Your task to perform on an android device: Open calendar and show me the fourth week of next month Image 0: 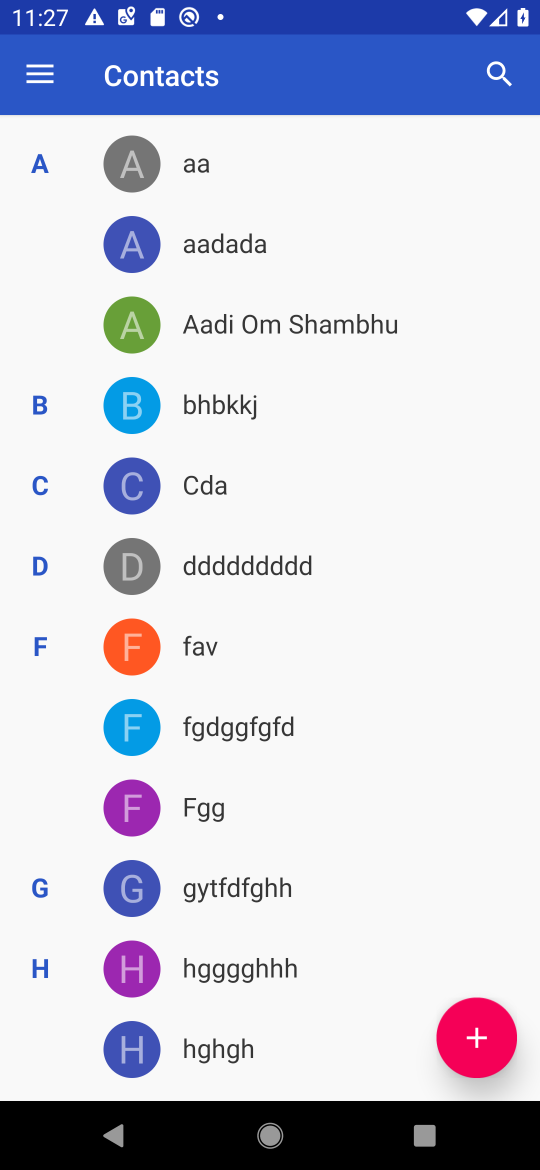
Step 0: press home button
Your task to perform on an android device: Open calendar and show me the fourth week of next month Image 1: 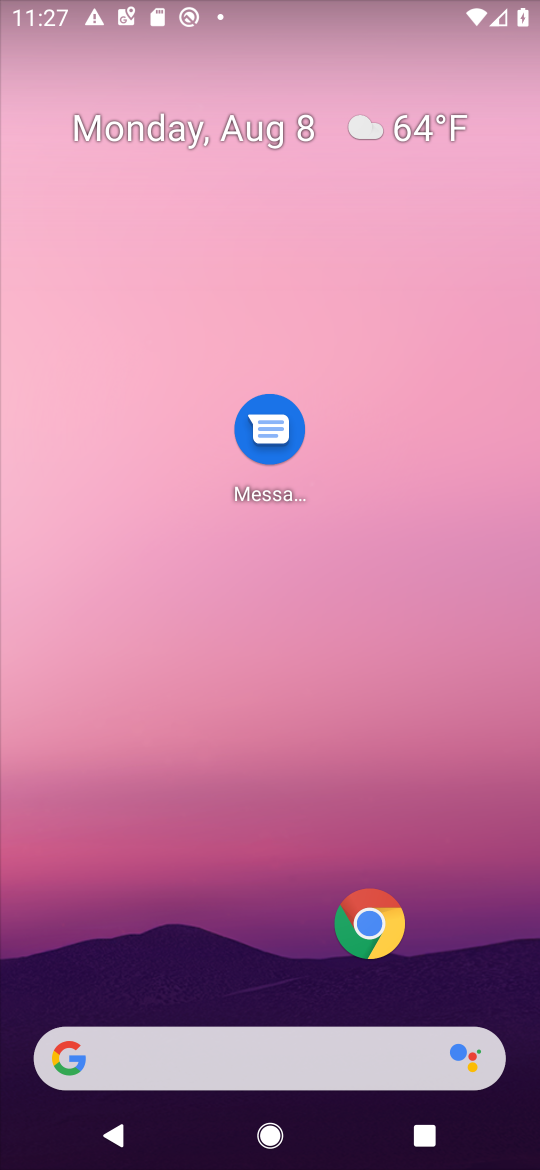
Step 1: drag from (31, 1117) to (312, 342)
Your task to perform on an android device: Open calendar and show me the fourth week of next month Image 2: 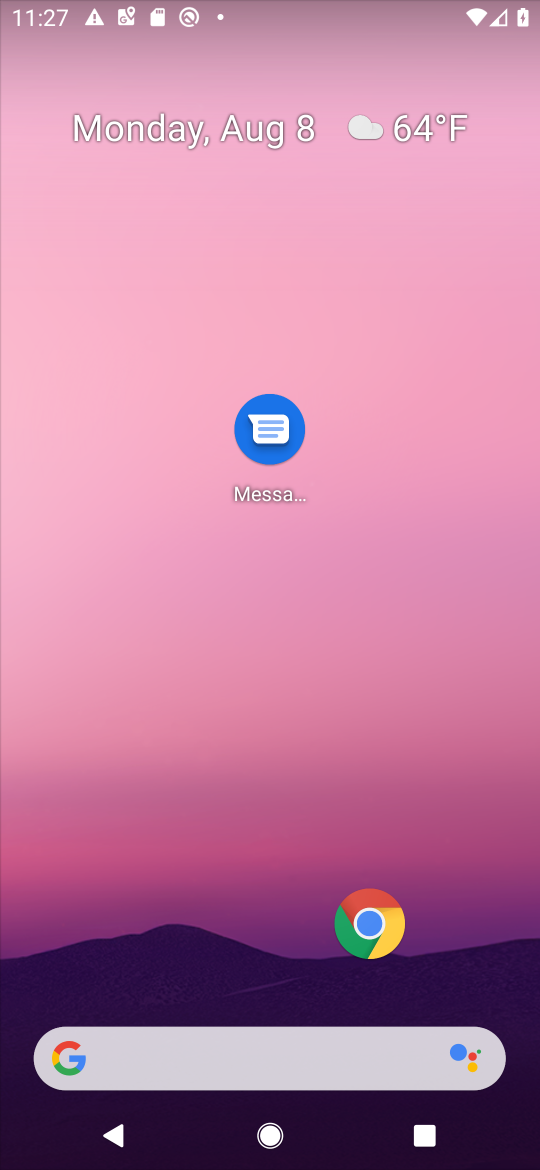
Step 2: drag from (34, 1131) to (352, 441)
Your task to perform on an android device: Open calendar and show me the fourth week of next month Image 3: 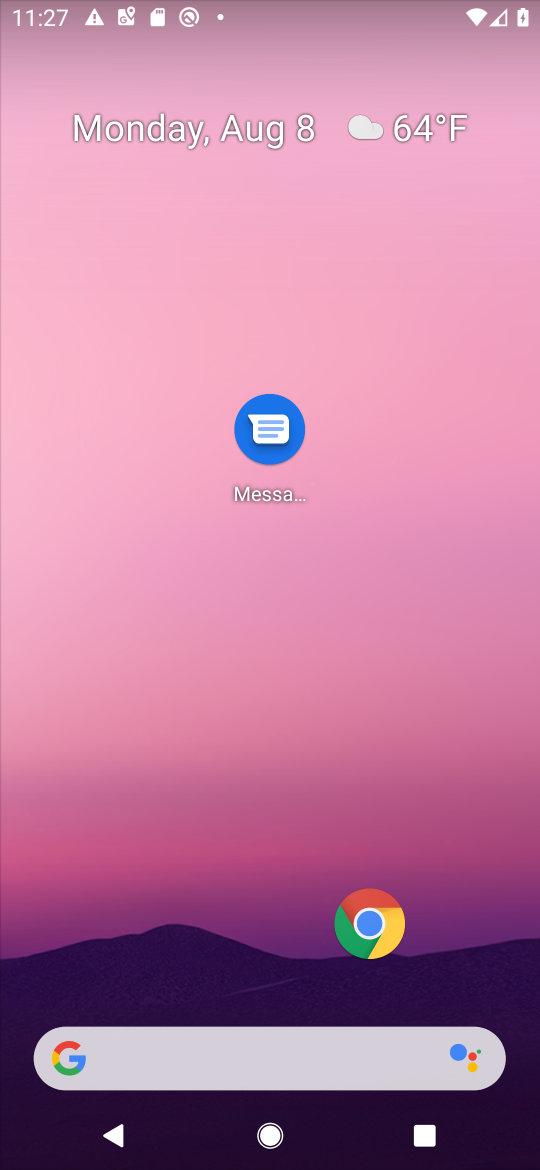
Step 3: drag from (20, 1105) to (305, 147)
Your task to perform on an android device: Open calendar and show me the fourth week of next month Image 4: 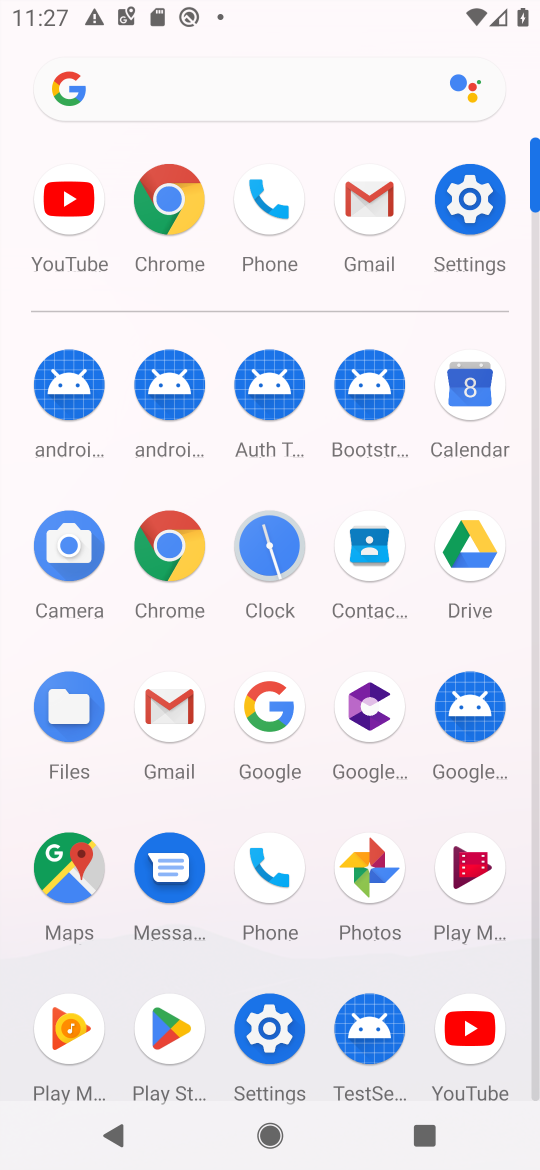
Step 4: click (483, 416)
Your task to perform on an android device: Open calendar and show me the fourth week of next month Image 5: 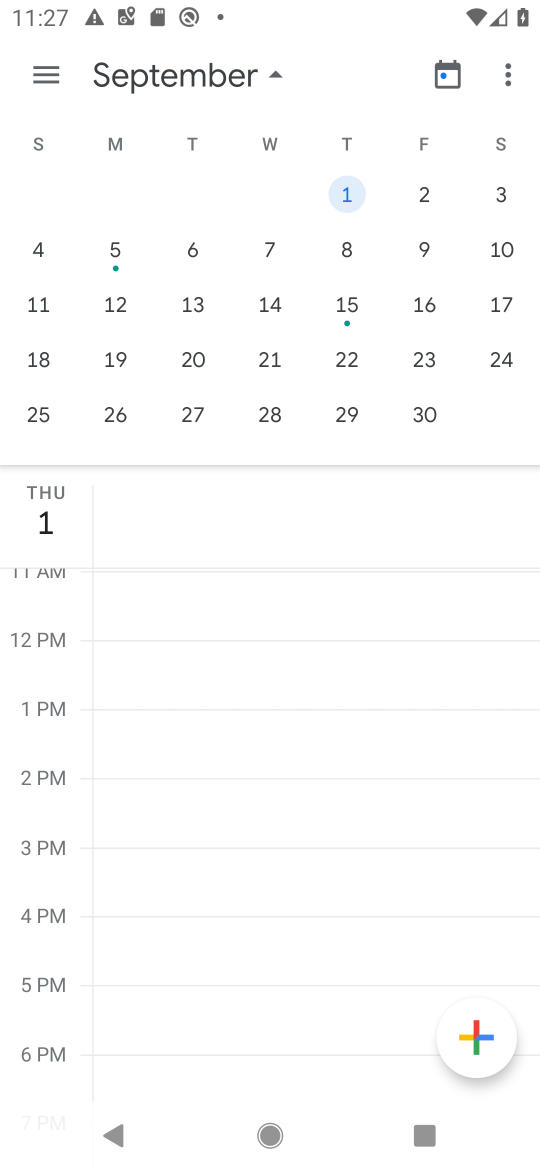
Step 5: click (115, 417)
Your task to perform on an android device: Open calendar and show me the fourth week of next month Image 6: 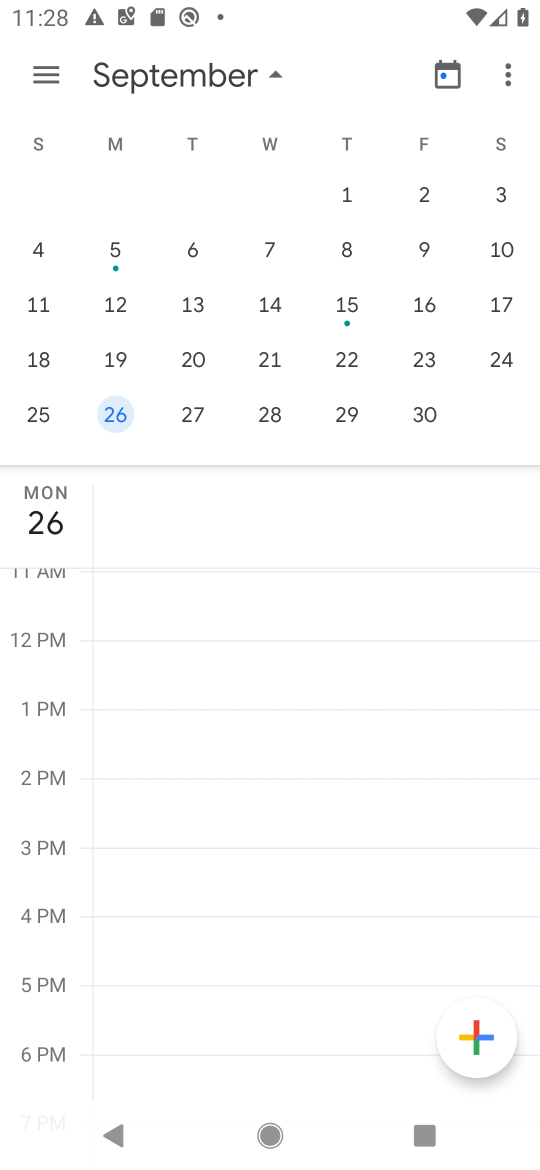
Step 6: task complete